Your task to perform on an android device: Open accessibility settings Image 0: 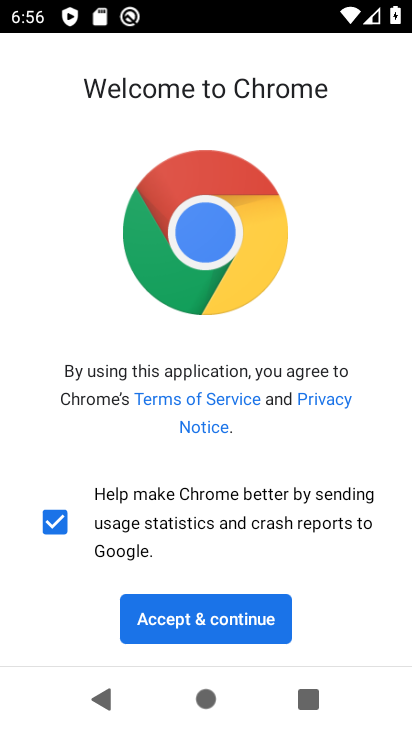
Step 0: press home button
Your task to perform on an android device: Open accessibility settings Image 1: 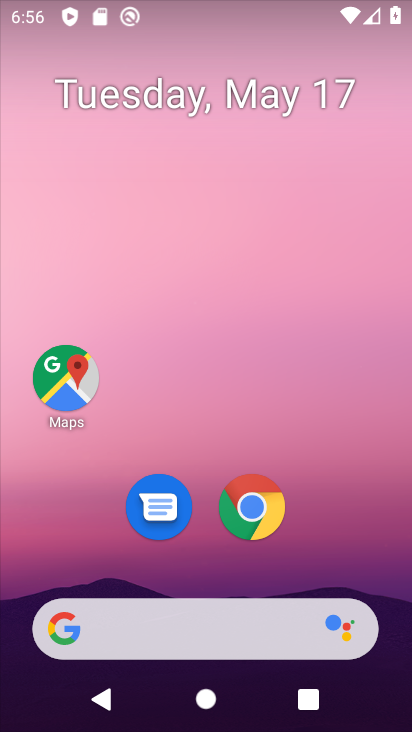
Step 1: drag from (351, 570) to (394, 9)
Your task to perform on an android device: Open accessibility settings Image 2: 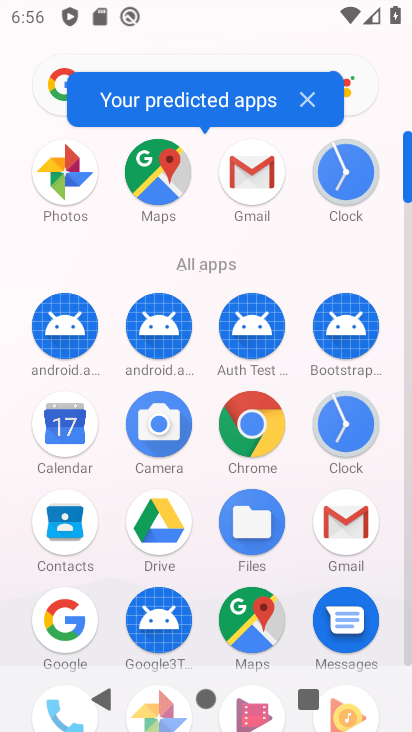
Step 2: drag from (272, 272) to (273, 2)
Your task to perform on an android device: Open accessibility settings Image 3: 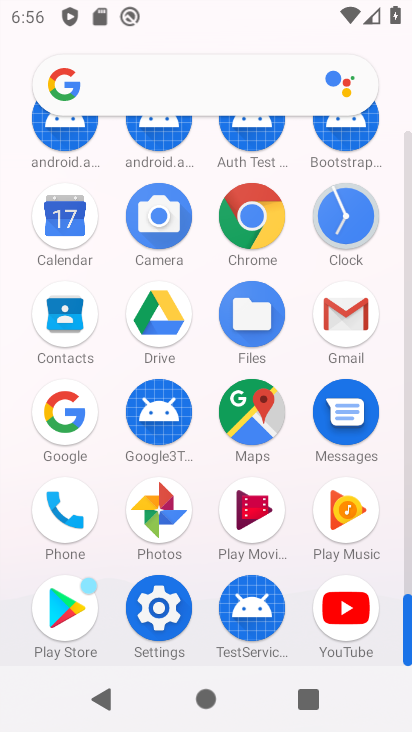
Step 3: click (164, 608)
Your task to perform on an android device: Open accessibility settings Image 4: 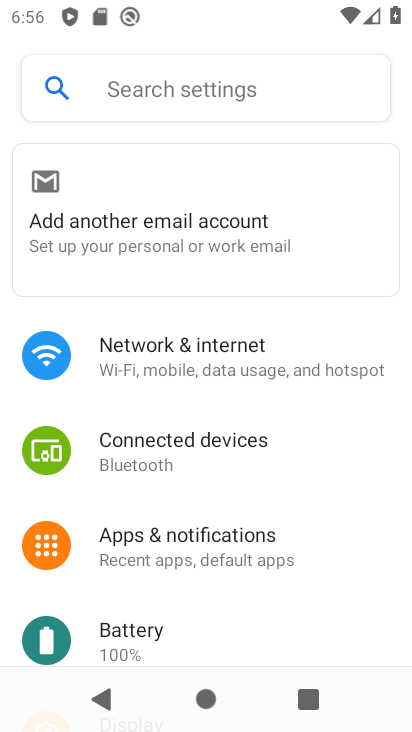
Step 4: drag from (232, 510) to (188, 2)
Your task to perform on an android device: Open accessibility settings Image 5: 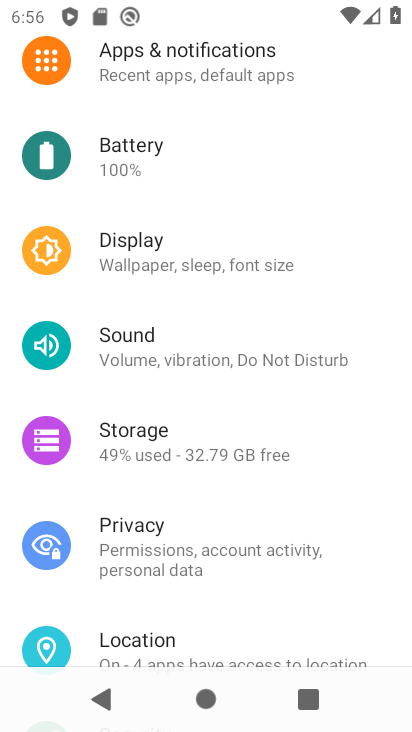
Step 5: drag from (195, 629) to (233, 157)
Your task to perform on an android device: Open accessibility settings Image 6: 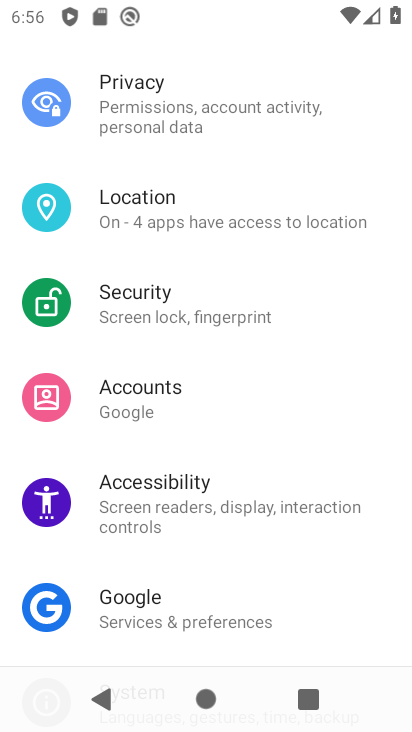
Step 6: click (123, 493)
Your task to perform on an android device: Open accessibility settings Image 7: 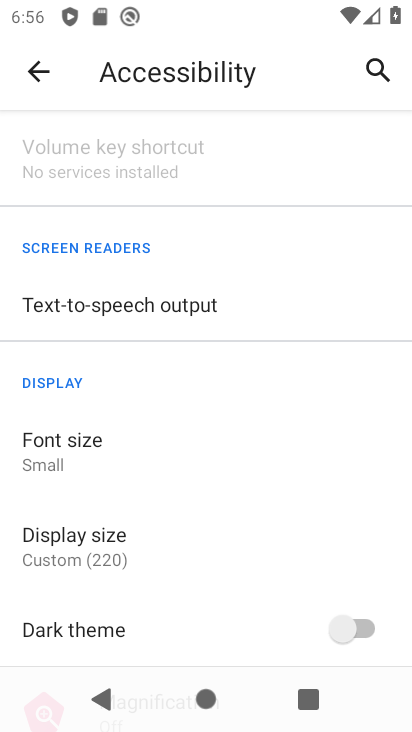
Step 7: task complete